Your task to perform on an android device: Open Android settings Image 0: 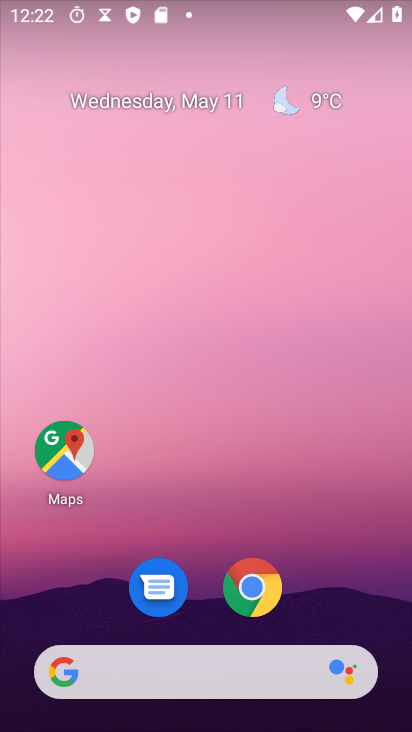
Step 0: drag from (309, 494) to (199, 310)
Your task to perform on an android device: Open Android settings Image 1: 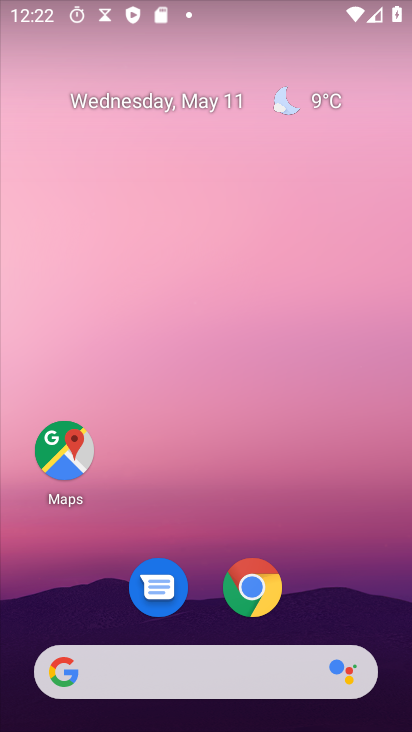
Step 1: drag from (307, 552) to (97, 69)
Your task to perform on an android device: Open Android settings Image 2: 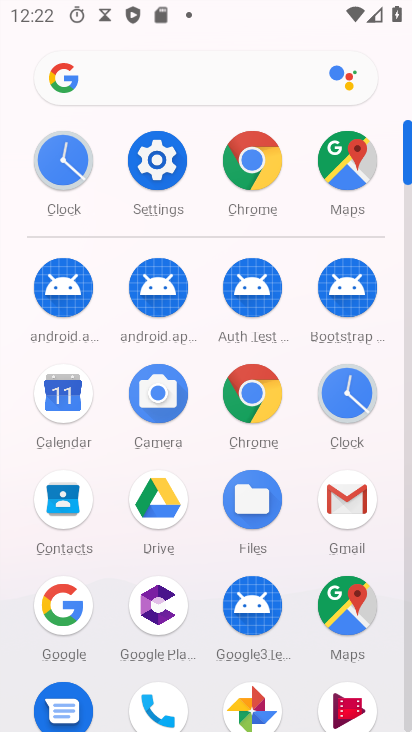
Step 2: click (161, 157)
Your task to perform on an android device: Open Android settings Image 3: 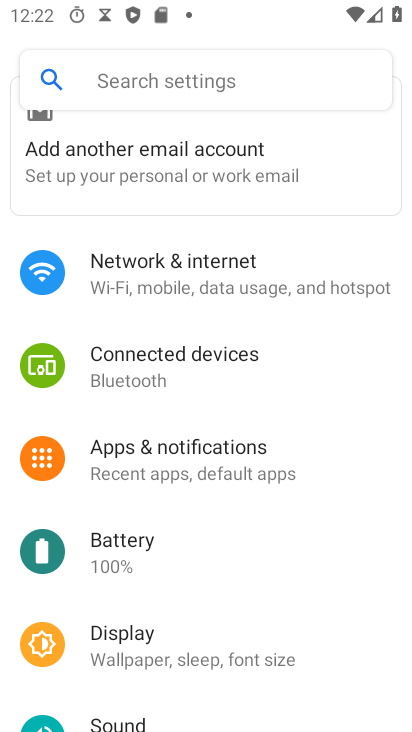
Step 3: drag from (180, 570) to (99, 236)
Your task to perform on an android device: Open Android settings Image 4: 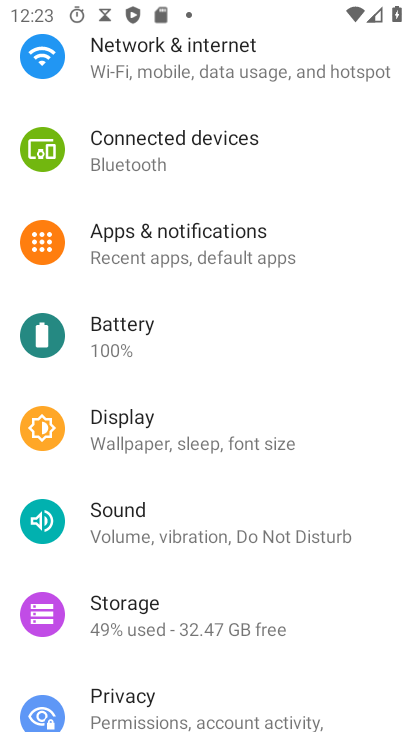
Step 4: drag from (216, 506) to (210, 237)
Your task to perform on an android device: Open Android settings Image 5: 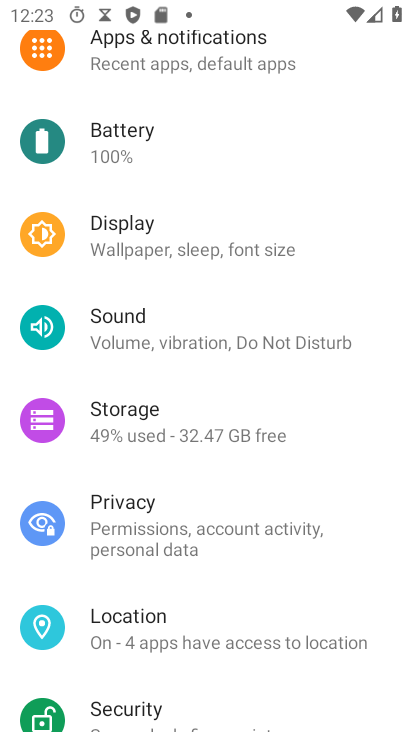
Step 5: drag from (165, 505) to (139, 146)
Your task to perform on an android device: Open Android settings Image 6: 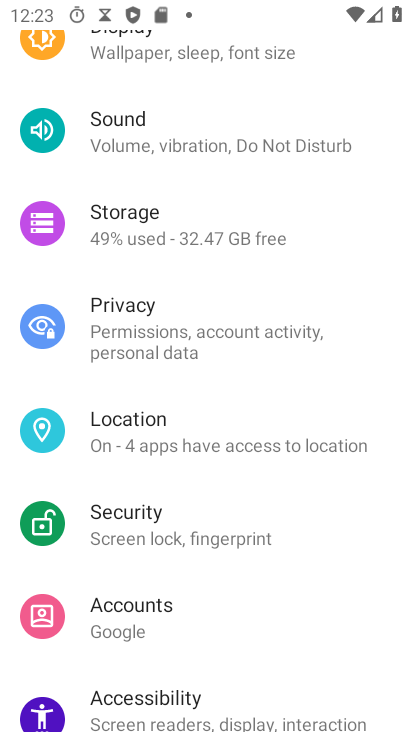
Step 6: drag from (207, 567) to (201, 246)
Your task to perform on an android device: Open Android settings Image 7: 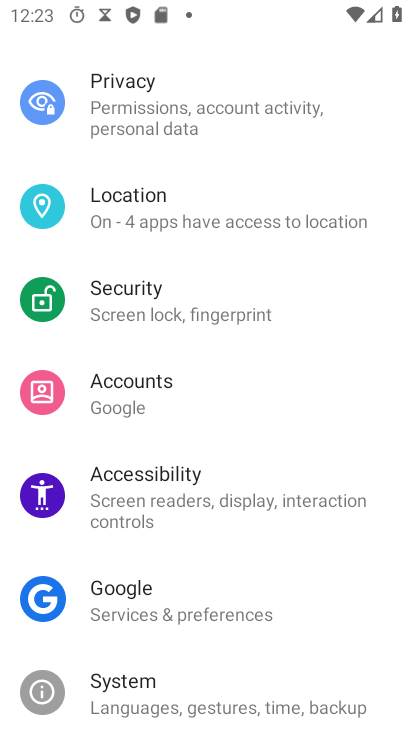
Step 7: drag from (192, 662) to (140, 384)
Your task to perform on an android device: Open Android settings Image 8: 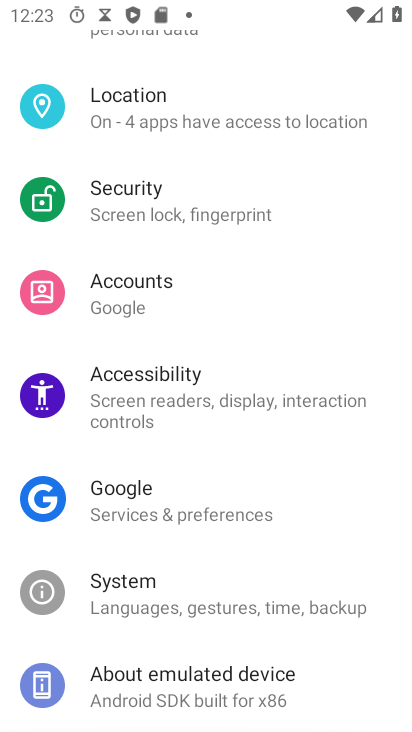
Step 8: drag from (240, 623) to (242, 167)
Your task to perform on an android device: Open Android settings Image 9: 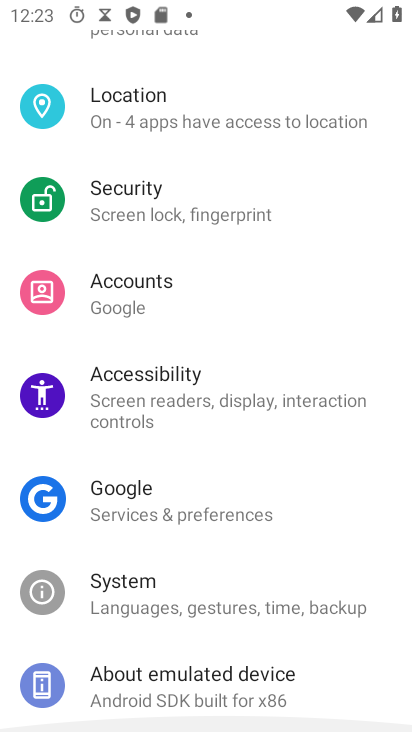
Step 9: drag from (271, 361) to (250, 215)
Your task to perform on an android device: Open Android settings Image 10: 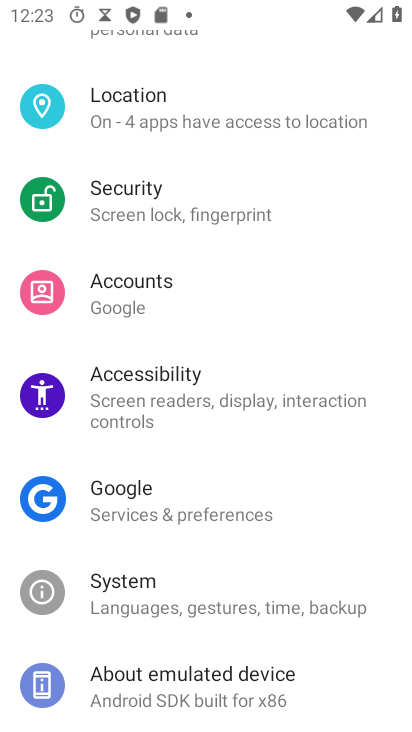
Step 10: click (182, 690)
Your task to perform on an android device: Open Android settings Image 11: 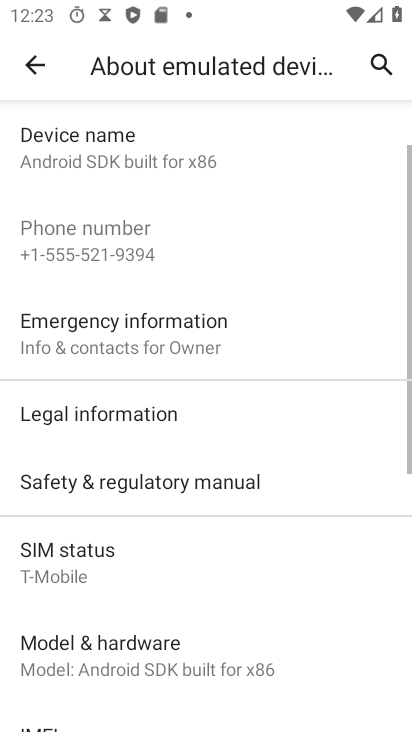
Step 11: task complete